Your task to perform on an android device: turn off priority inbox in the gmail app Image 0: 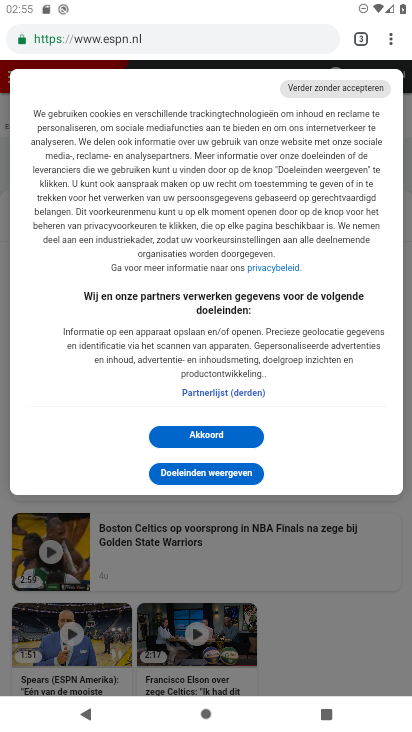
Step 0: drag from (299, 569) to (129, 139)
Your task to perform on an android device: turn off priority inbox in the gmail app Image 1: 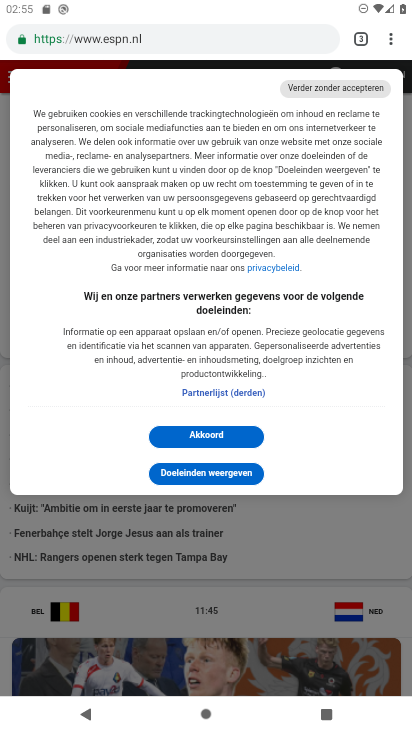
Step 1: drag from (391, 29) to (234, 519)
Your task to perform on an android device: turn off priority inbox in the gmail app Image 2: 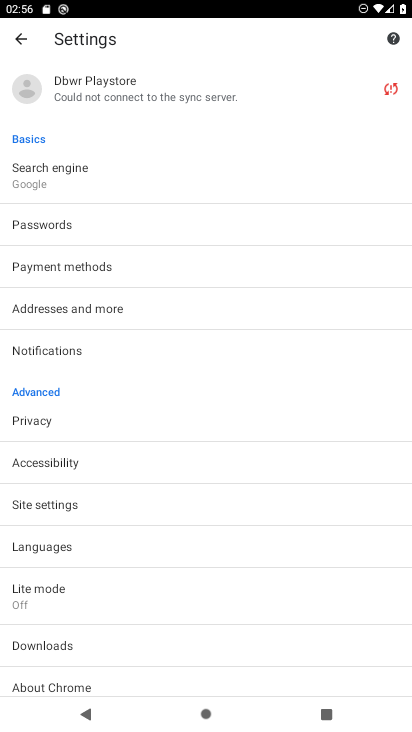
Step 2: drag from (72, 207) to (100, 186)
Your task to perform on an android device: turn off priority inbox in the gmail app Image 3: 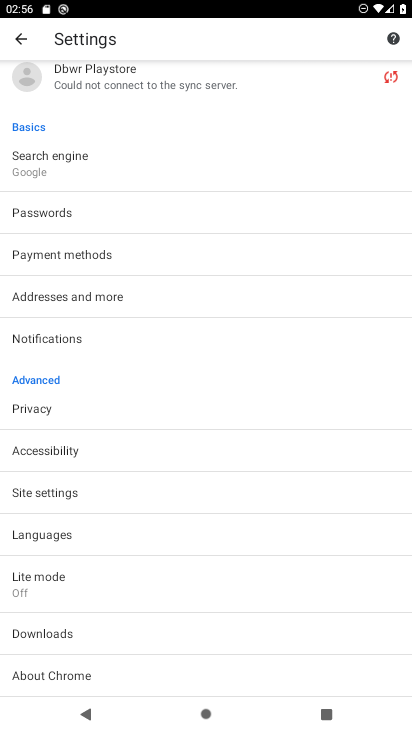
Step 3: press home button
Your task to perform on an android device: turn off priority inbox in the gmail app Image 4: 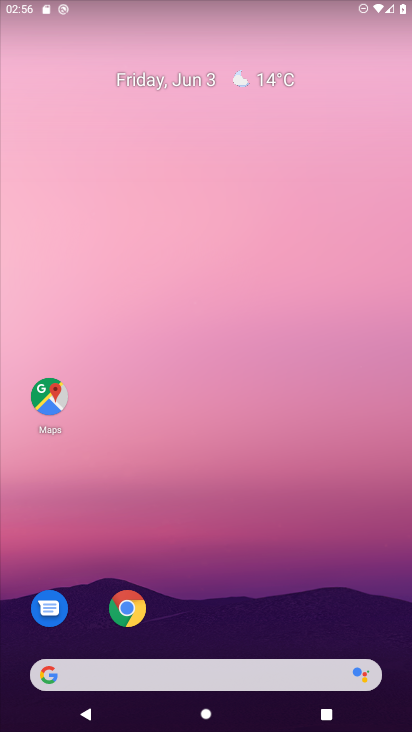
Step 4: drag from (270, 577) to (236, 129)
Your task to perform on an android device: turn off priority inbox in the gmail app Image 5: 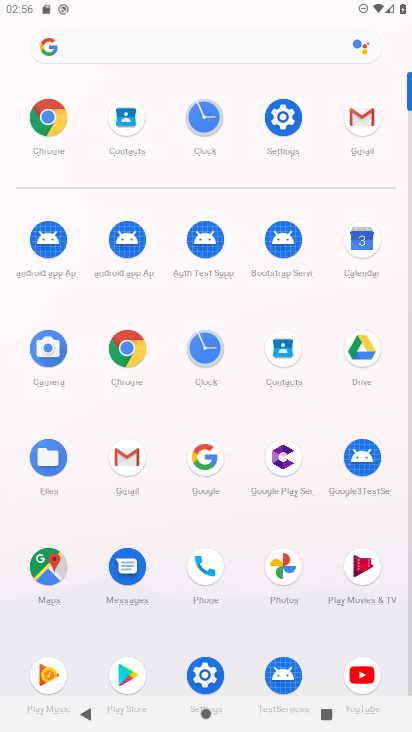
Step 5: click (367, 115)
Your task to perform on an android device: turn off priority inbox in the gmail app Image 6: 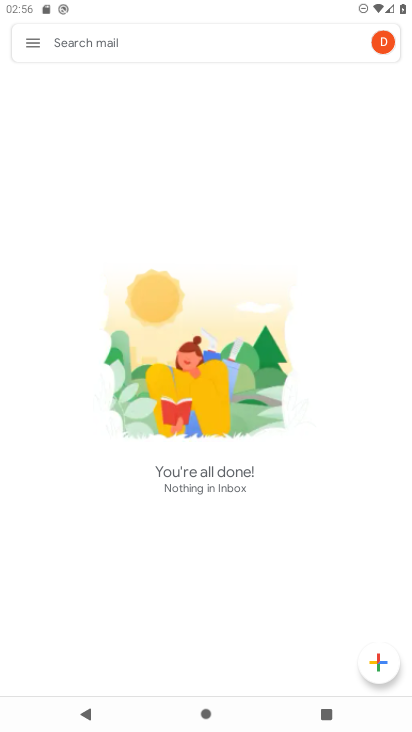
Step 6: click (44, 44)
Your task to perform on an android device: turn off priority inbox in the gmail app Image 7: 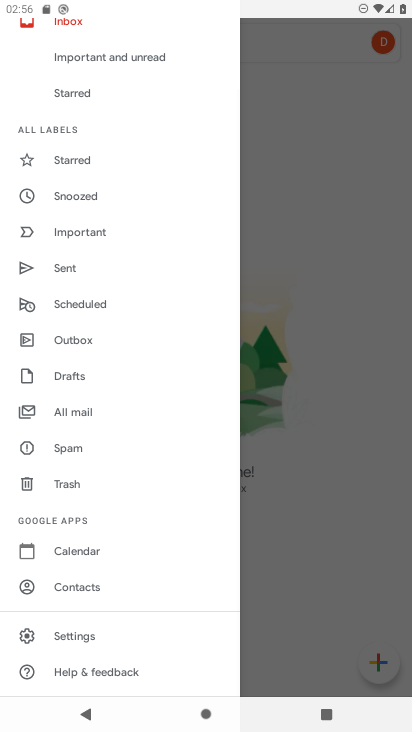
Step 7: click (87, 639)
Your task to perform on an android device: turn off priority inbox in the gmail app Image 8: 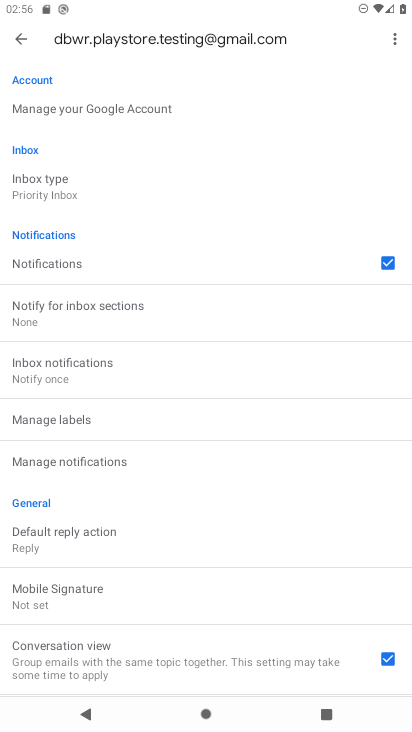
Step 8: drag from (176, 127) to (221, 560)
Your task to perform on an android device: turn off priority inbox in the gmail app Image 9: 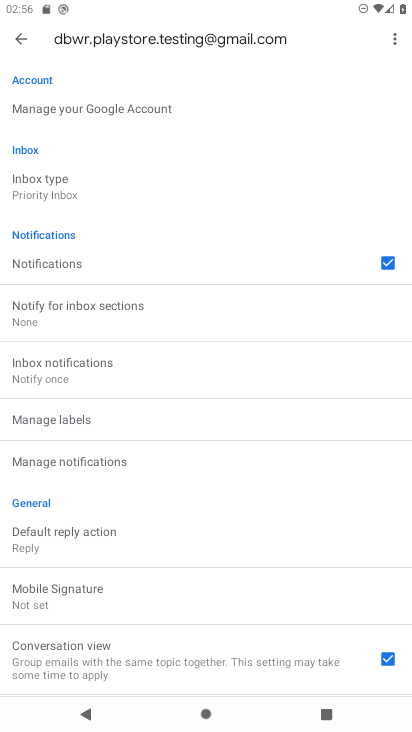
Step 9: click (74, 186)
Your task to perform on an android device: turn off priority inbox in the gmail app Image 10: 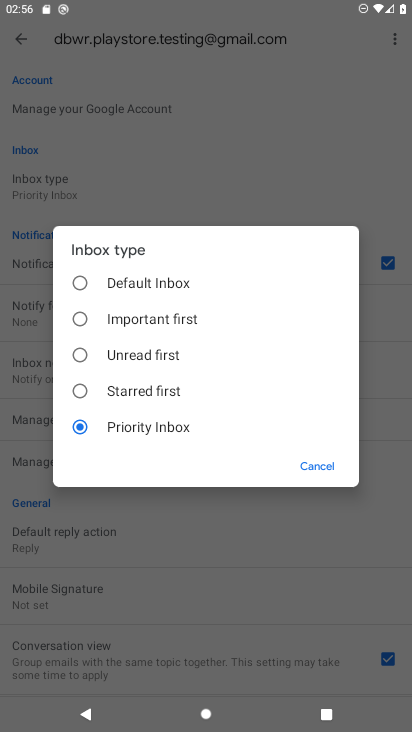
Step 10: task complete